Your task to perform on an android device: Open Google Chrome and click the shortcut for Amazon.com Image 0: 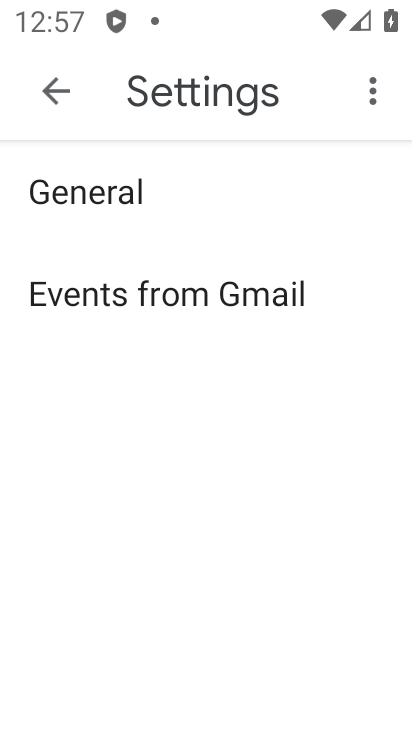
Step 0: press home button
Your task to perform on an android device: Open Google Chrome and click the shortcut for Amazon.com Image 1: 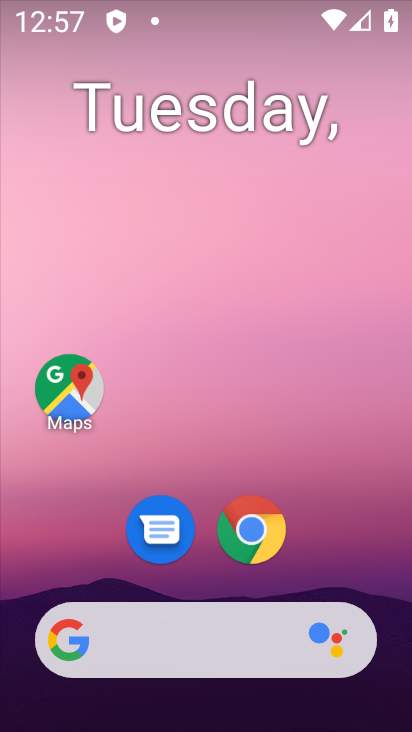
Step 1: click (253, 528)
Your task to perform on an android device: Open Google Chrome and click the shortcut for Amazon.com Image 2: 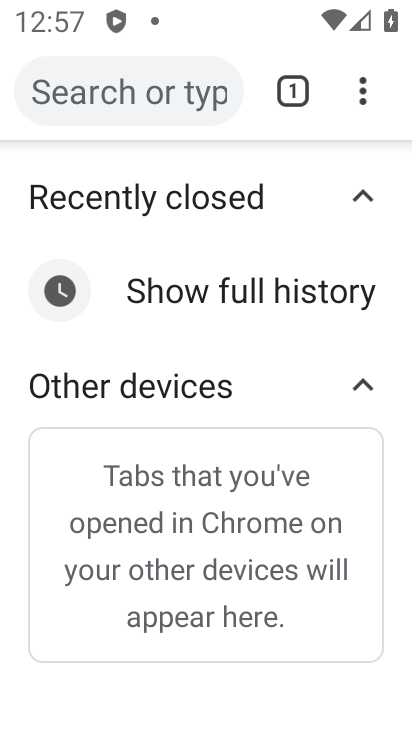
Step 2: click (203, 99)
Your task to perform on an android device: Open Google Chrome and click the shortcut for Amazon.com Image 3: 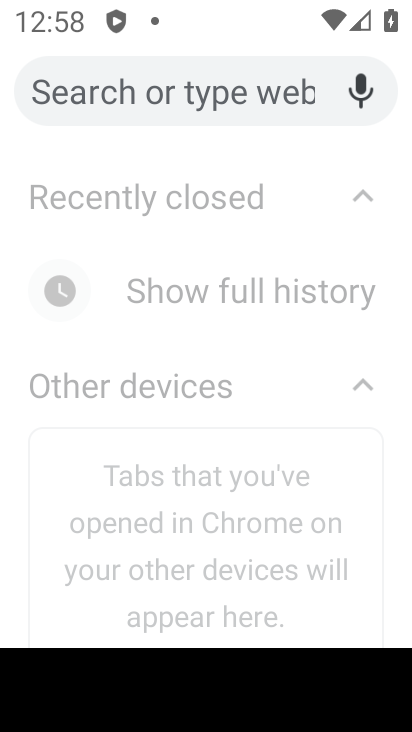
Step 3: type "Amazon.com"
Your task to perform on an android device: Open Google Chrome and click the shortcut for Amazon.com Image 4: 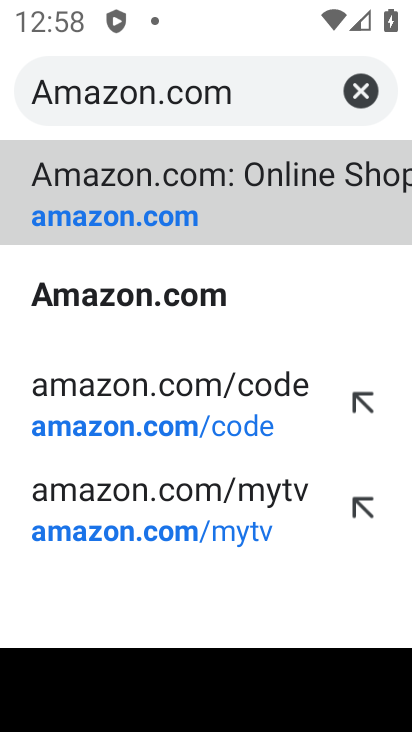
Step 4: click (136, 305)
Your task to perform on an android device: Open Google Chrome and click the shortcut for Amazon.com Image 5: 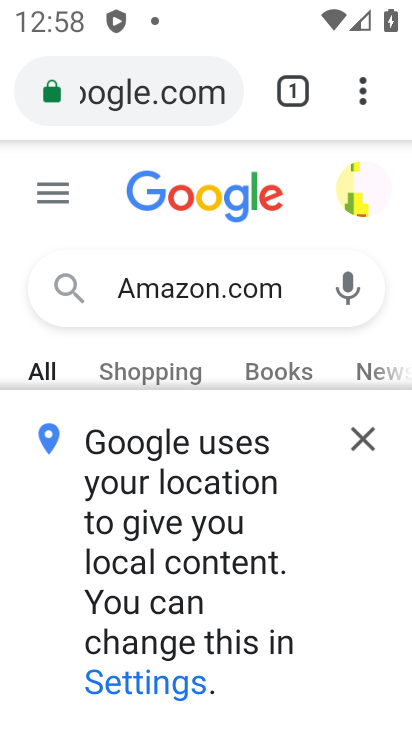
Step 5: click (364, 436)
Your task to perform on an android device: Open Google Chrome and click the shortcut for Amazon.com Image 6: 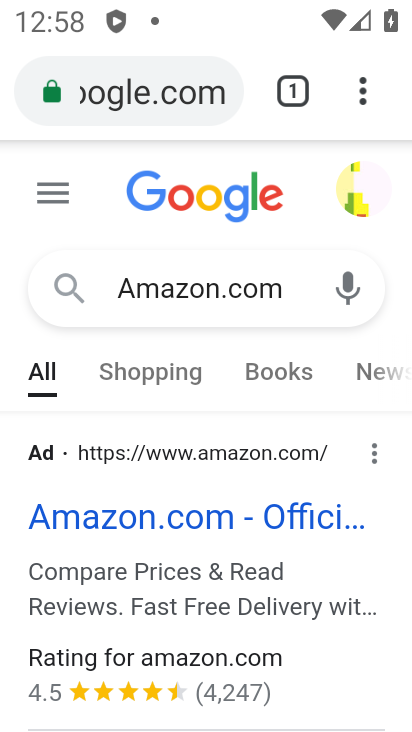
Step 6: click (214, 519)
Your task to perform on an android device: Open Google Chrome and click the shortcut for Amazon.com Image 7: 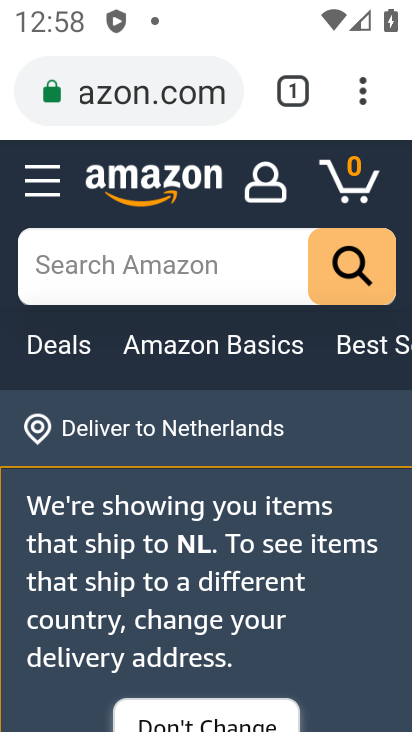
Step 7: click (363, 89)
Your task to perform on an android device: Open Google Chrome and click the shortcut for Amazon.com Image 8: 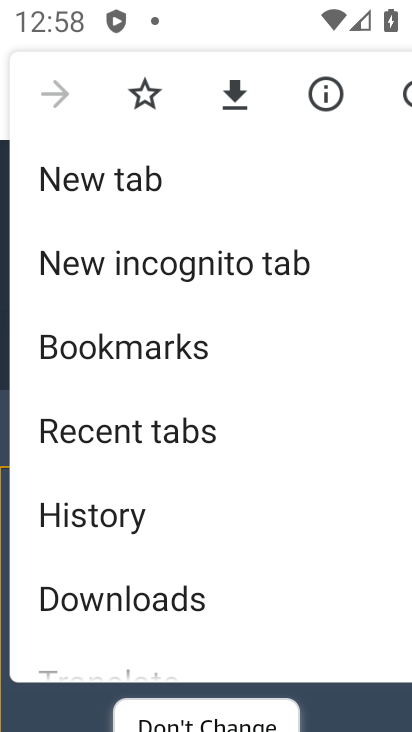
Step 8: drag from (152, 518) to (205, 440)
Your task to perform on an android device: Open Google Chrome and click the shortcut for Amazon.com Image 9: 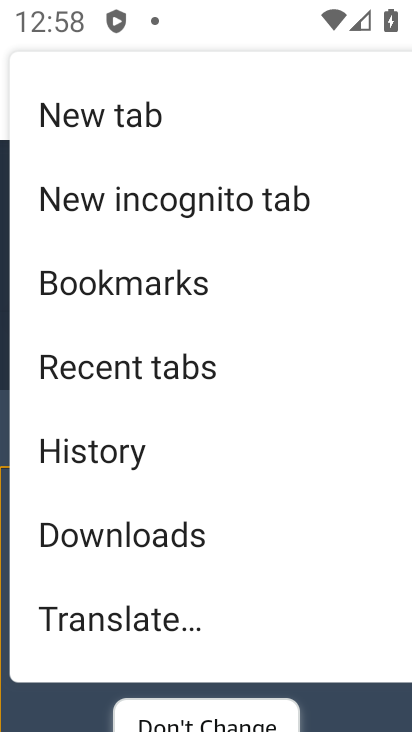
Step 9: drag from (153, 569) to (247, 459)
Your task to perform on an android device: Open Google Chrome and click the shortcut for Amazon.com Image 10: 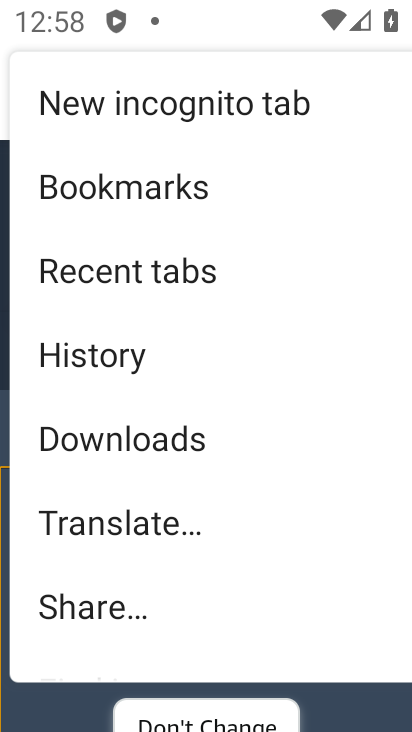
Step 10: drag from (169, 590) to (237, 494)
Your task to perform on an android device: Open Google Chrome and click the shortcut for Amazon.com Image 11: 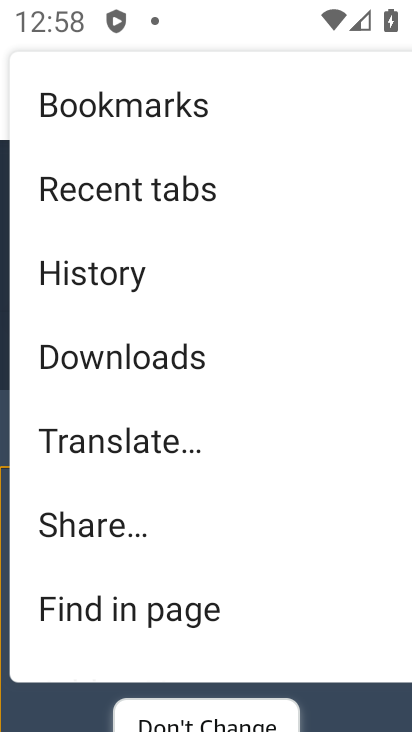
Step 11: drag from (167, 553) to (244, 462)
Your task to perform on an android device: Open Google Chrome and click the shortcut for Amazon.com Image 12: 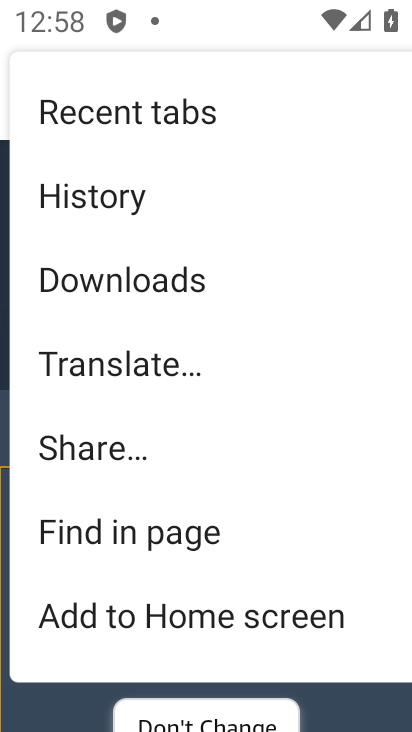
Step 12: click (157, 610)
Your task to perform on an android device: Open Google Chrome and click the shortcut for Amazon.com Image 13: 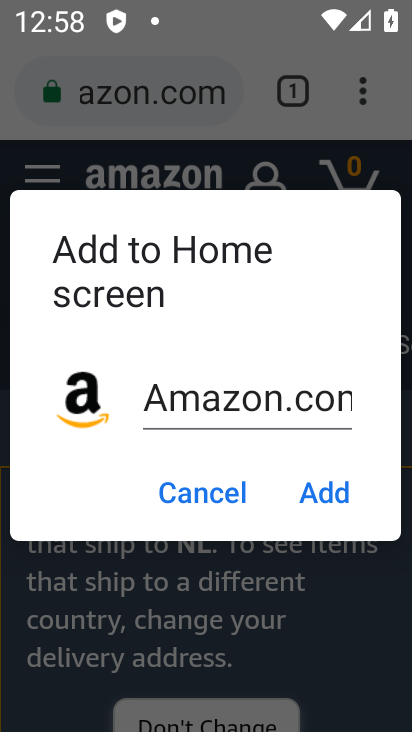
Step 13: click (325, 488)
Your task to perform on an android device: Open Google Chrome and click the shortcut for Amazon.com Image 14: 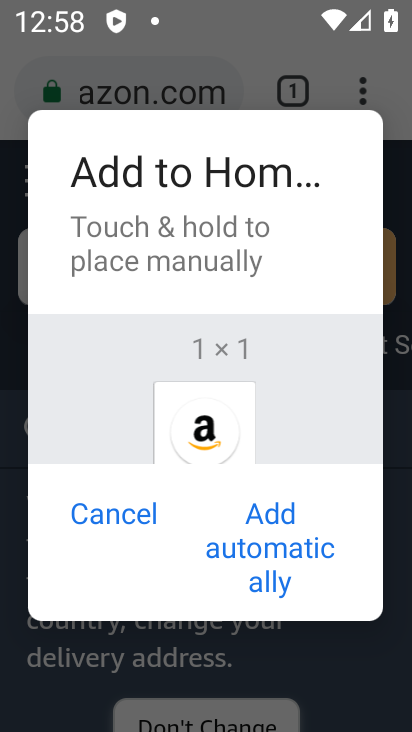
Step 14: click (272, 538)
Your task to perform on an android device: Open Google Chrome and click the shortcut for Amazon.com Image 15: 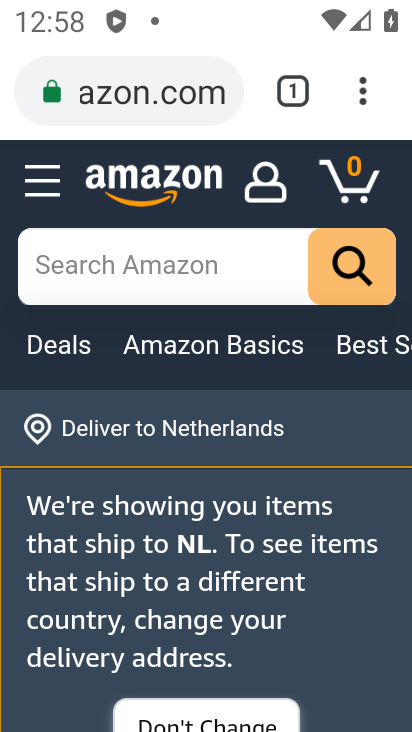
Step 15: task complete